Your task to perform on an android device: check google app version Image 0: 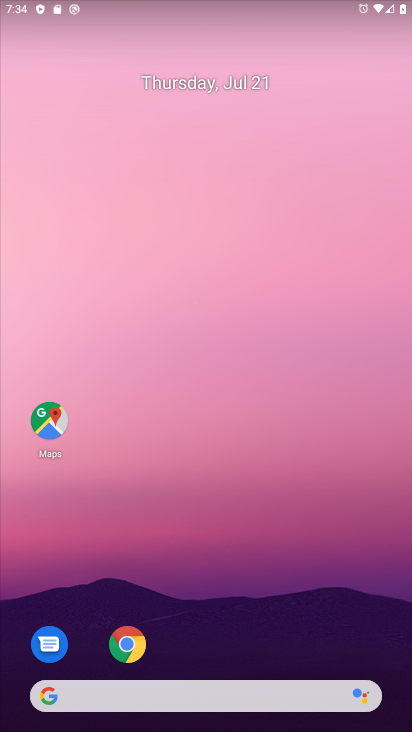
Step 0: drag from (206, 608) to (204, 180)
Your task to perform on an android device: check google app version Image 1: 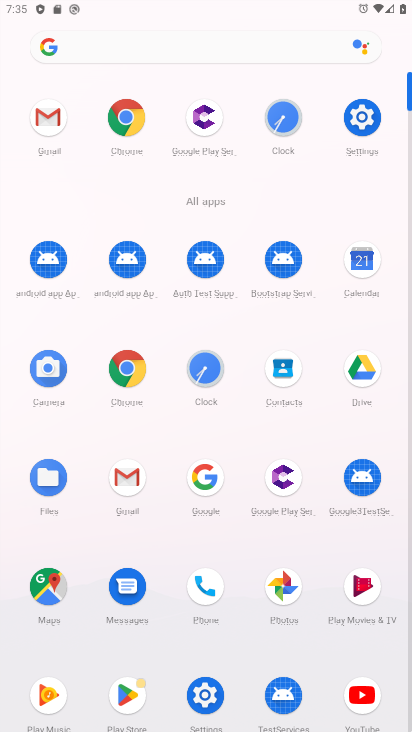
Step 1: click (200, 484)
Your task to perform on an android device: check google app version Image 2: 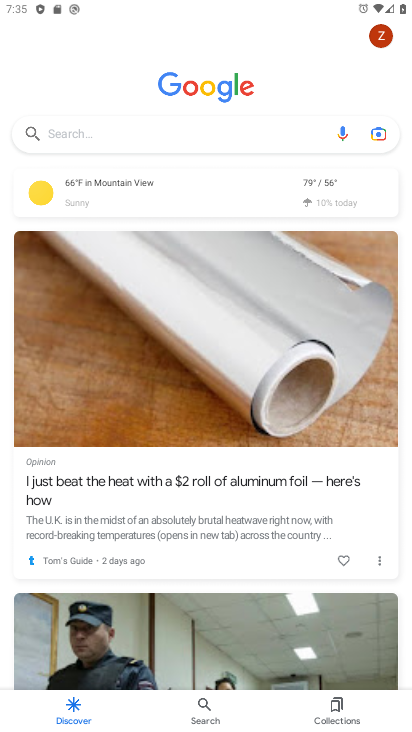
Step 2: click (384, 21)
Your task to perform on an android device: check google app version Image 3: 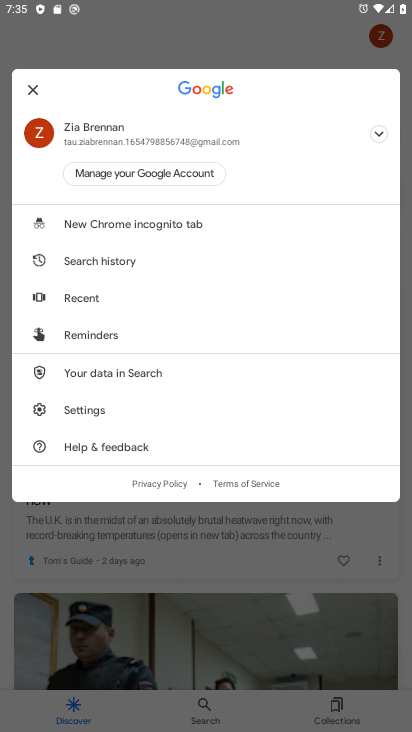
Step 3: click (108, 407)
Your task to perform on an android device: check google app version Image 4: 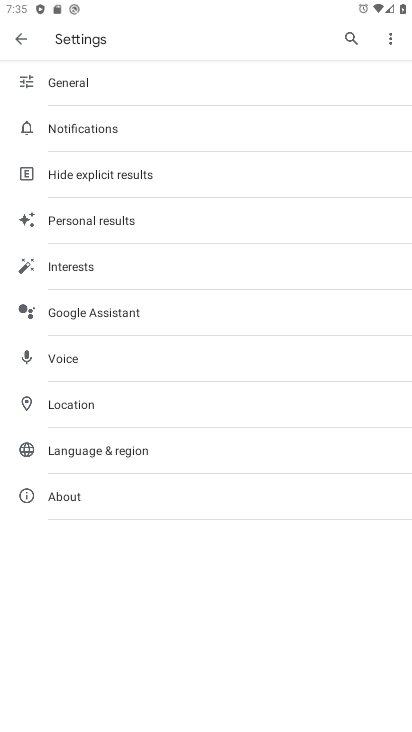
Step 4: click (106, 501)
Your task to perform on an android device: check google app version Image 5: 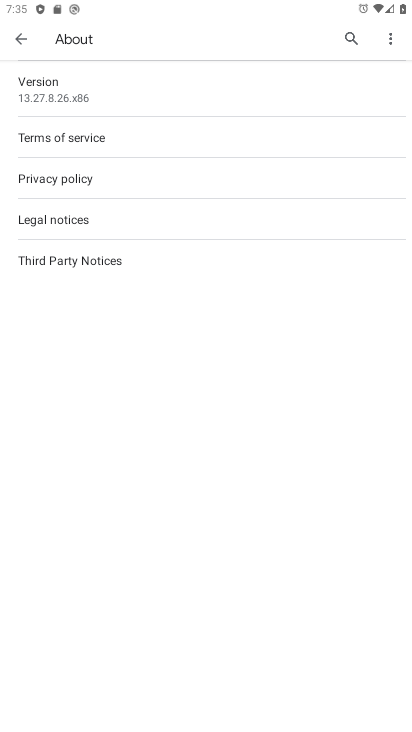
Step 5: click (90, 90)
Your task to perform on an android device: check google app version Image 6: 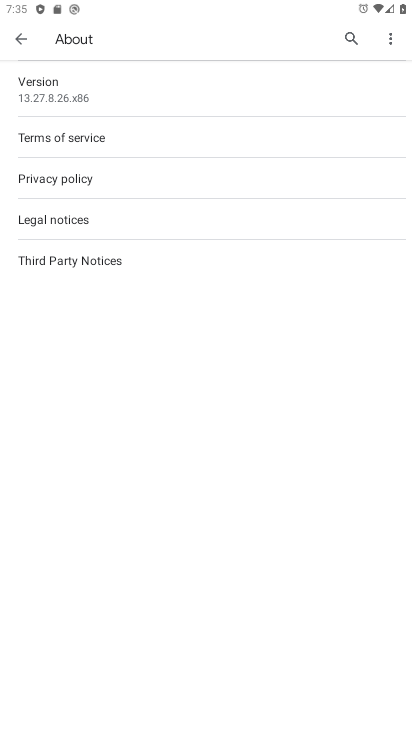
Step 6: task complete